Your task to perform on an android device: empty trash in google photos Image 0: 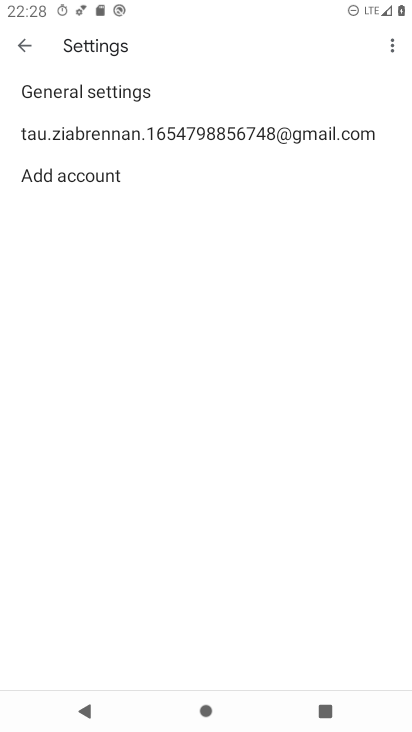
Step 0: press home button
Your task to perform on an android device: empty trash in google photos Image 1: 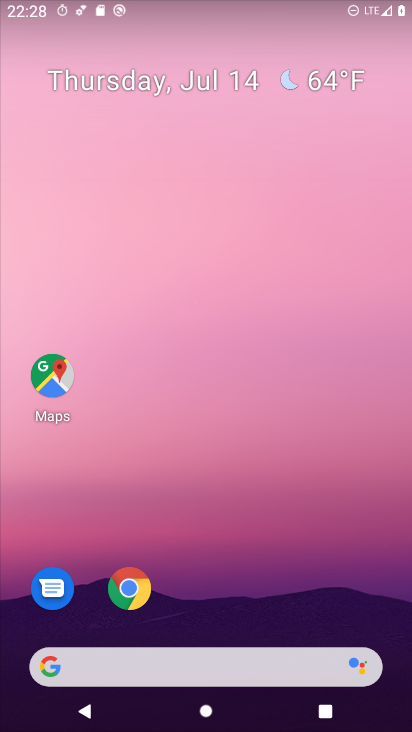
Step 1: drag from (310, 616) to (309, 126)
Your task to perform on an android device: empty trash in google photos Image 2: 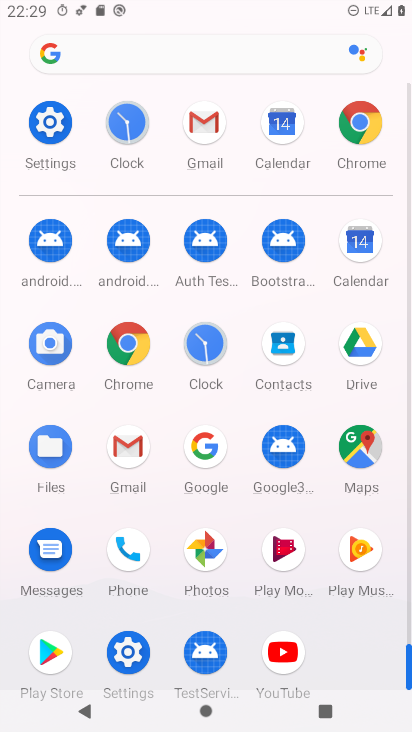
Step 2: click (209, 548)
Your task to perform on an android device: empty trash in google photos Image 3: 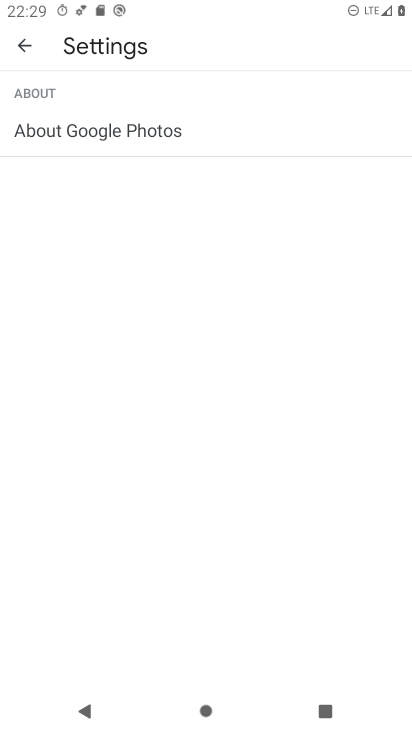
Step 3: press back button
Your task to perform on an android device: empty trash in google photos Image 4: 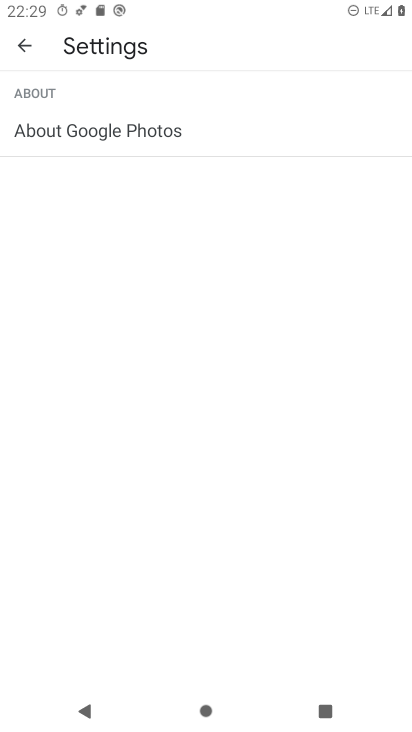
Step 4: press back button
Your task to perform on an android device: empty trash in google photos Image 5: 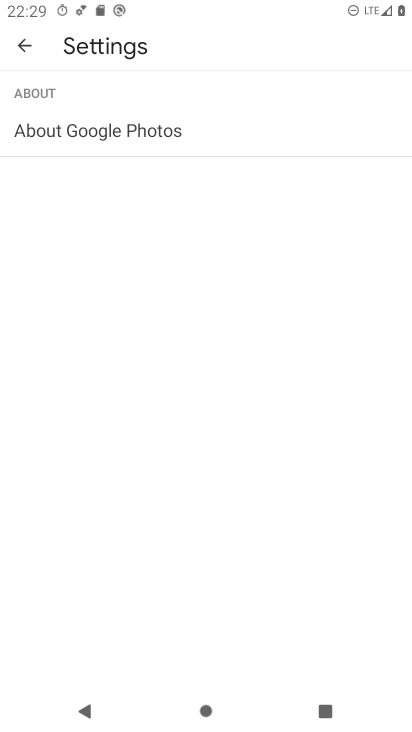
Step 5: press back button
Your task to perform on an android device: empty trash in google photos Image 6: 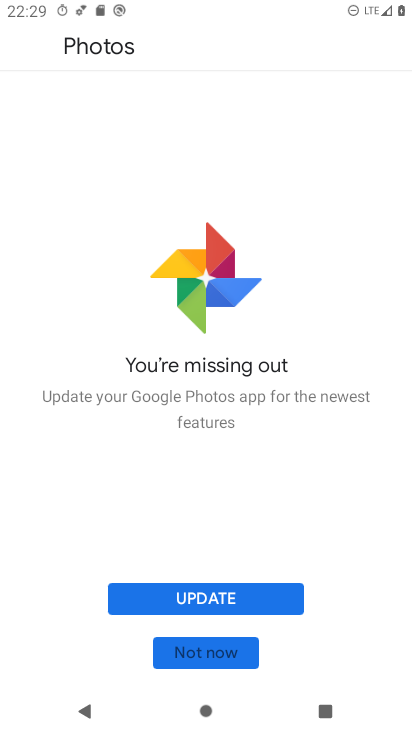
Step 6: click (262, 605)
Your task to perform on an android device: empty trash in google photos Image 7: 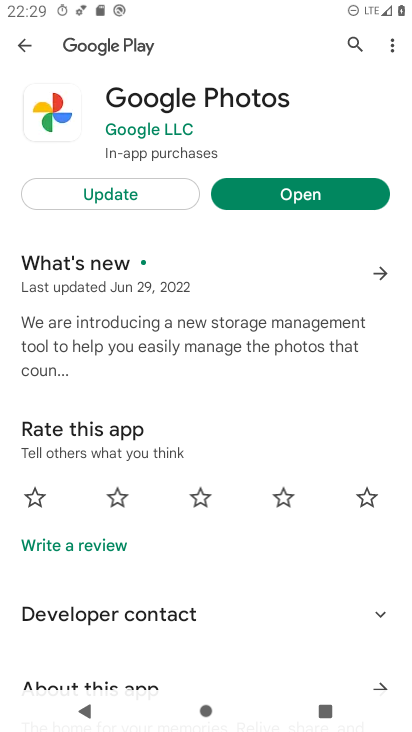
Step 7: click (161, 196)
Your task to perform on an android device: empty trash in google photos Image 8: 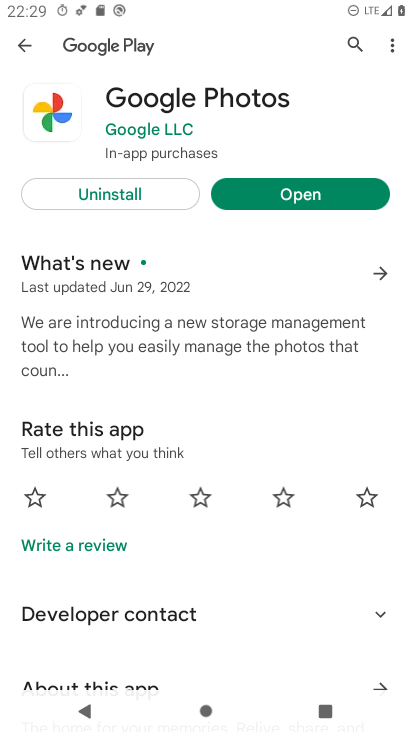
Step 8: click (293, 184)
Your task to perform on an android device: empty trash in google photos Image 9: 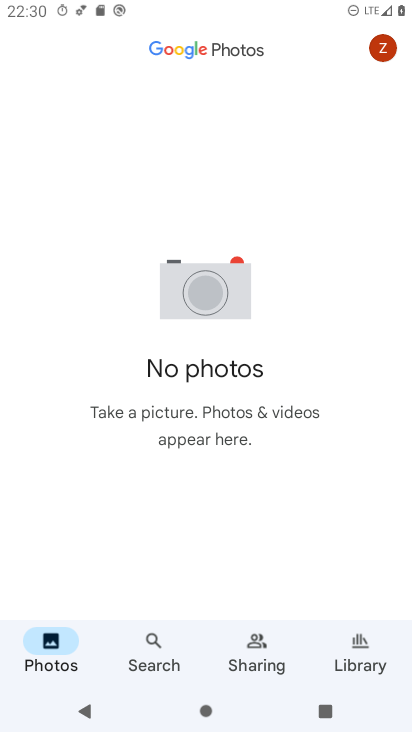
Step 9: click (360, 655)
Your task to perform on an android device: empty trash in google photos Image 10: 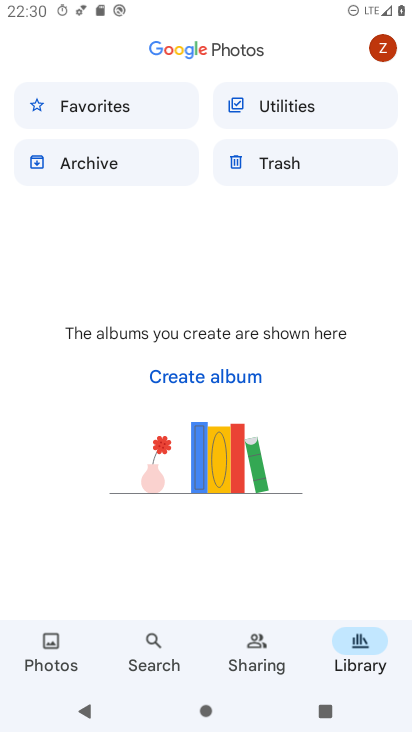
Step 10: click (308, 161)
Your task to perform on an android device: empty trash in google photos Image 11: 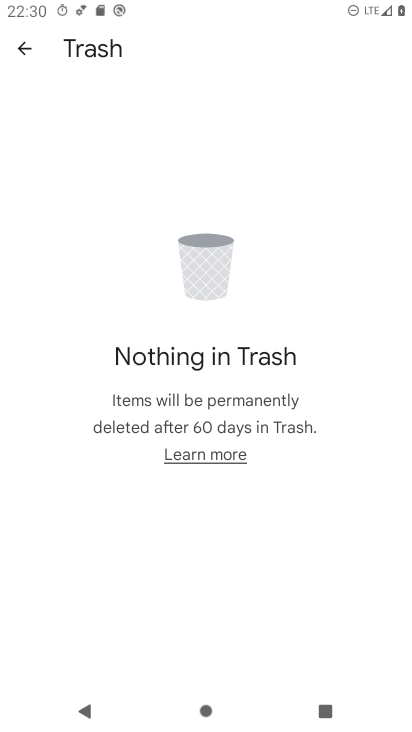
Step 11: task complete